Your task to perform on an android device: Go to internet settings Image 0: 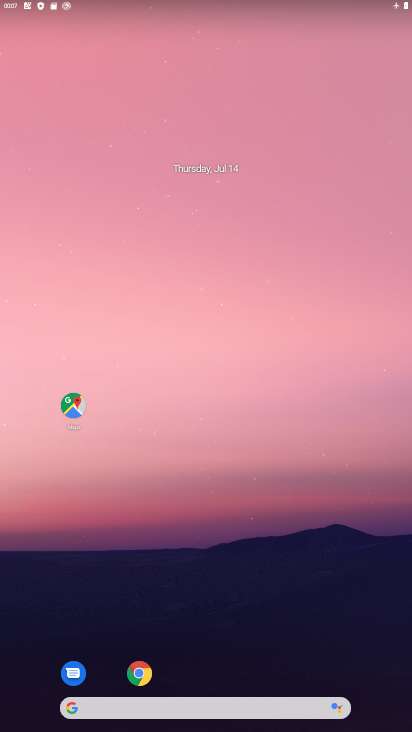
Step 0: drag from (234, 668) to (144, 272)
Your task to perform on an android device: Go to internet settings Image 1: 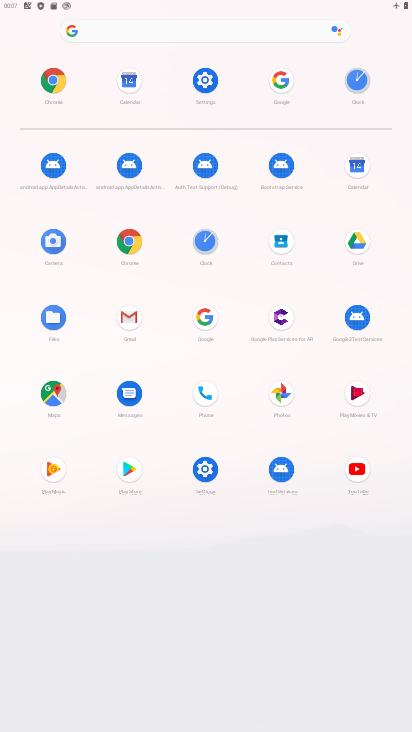
Step 1: click (209, 76)
Your task to perform on an android device: Go to internet settings Image 2: 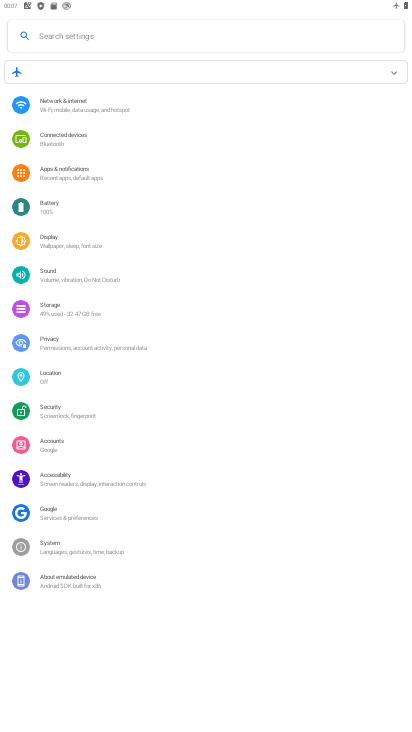
Step 2: click (104, 108)
Your task to perform on an android device: Go to internet settings Image 3: 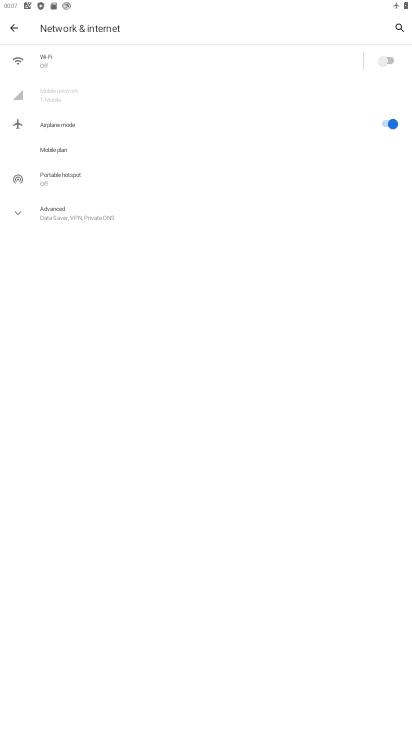
Step 3: task complete